Your task to perform on an android device: Go to accessibility settings Image 0: 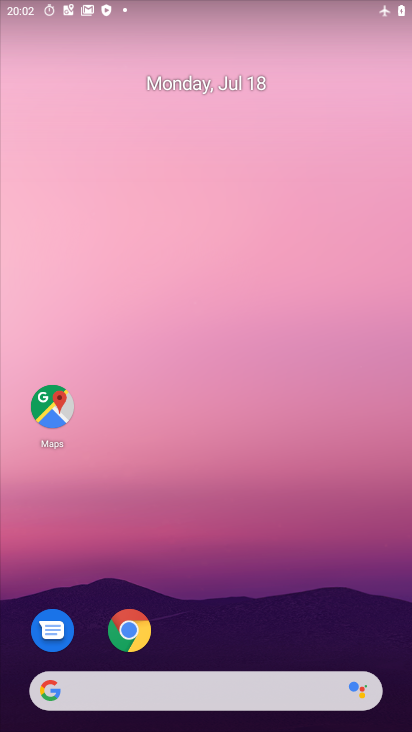
Step 0: drag from (295, 595) to (263, 99)
Your task to perform on an android device: Go to accessibility settings Image 1: 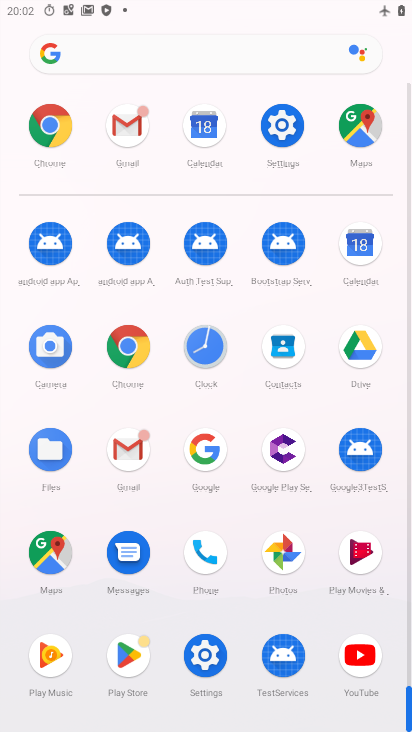
Step 1: click (277, 128)
Your task to perform on an android device: Go to accessibility settings Image 2: 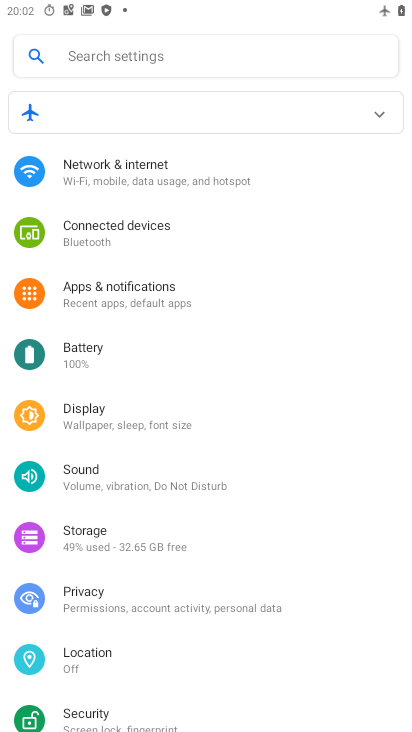
Step 2: drag from (168, 607) to (196, 250)
Your task to perform on an android device: Go to accessibility settings Image 3: 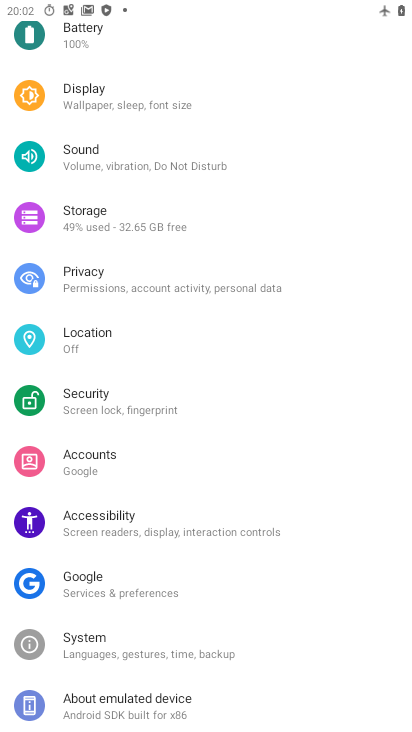
Step 3: click (127, 525)
Your task to perform on an android device: Go to accessibility settings Image 4: 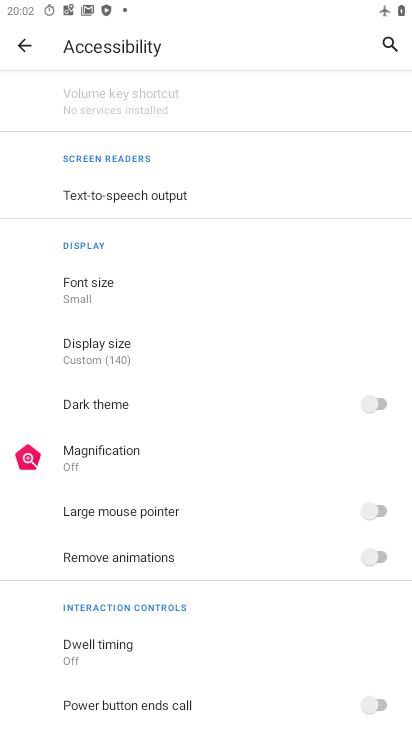
Step 4: task complete